Your task to perform on an android device: Go to display settings Image 0: 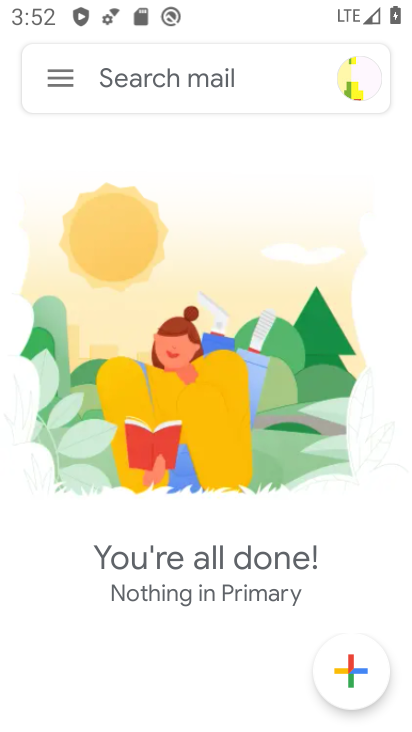
Step 0: press home button
Your task to perform on an android device: Go to display settings Image 1: 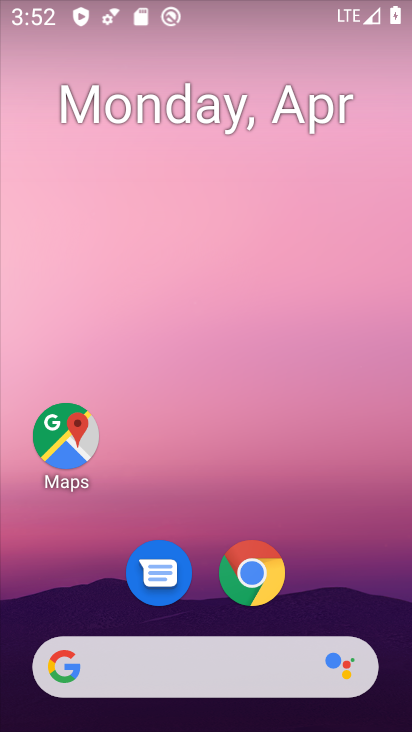
Step 1: drag from (372, 586) to (400, 117)
Your task to perform on an android device: Go to display settings Image 2: 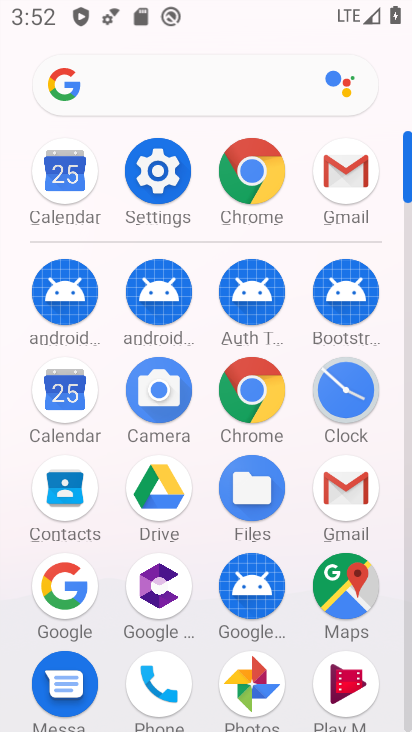
Step 2: click (180, 190)
Your task to perform on an android device: Go to display settings Image 3: 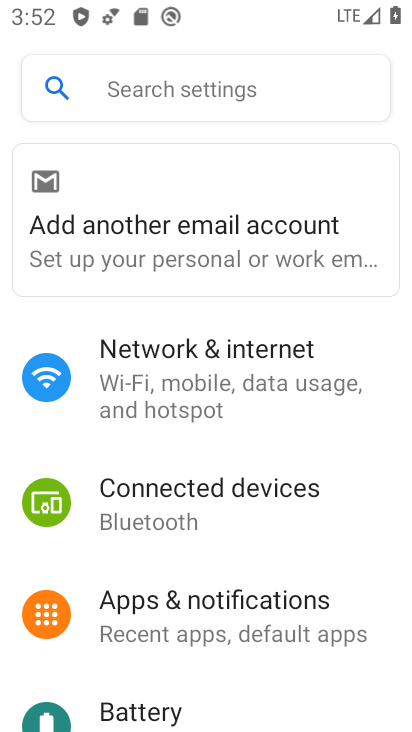
Step 3: drag from (361, 527) to (371, 383)
Your task to perform on an android device: Go to display settings Image 4: 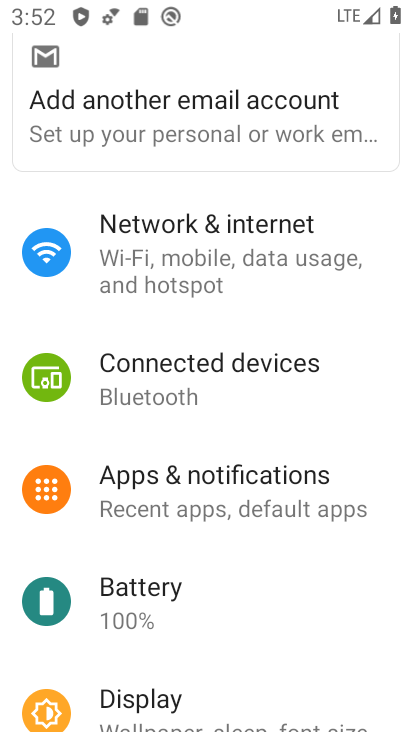
Step 4: drag from (363, 590) to (355, 422)
Your task to perform on an android device: Go to display settings Image 5: 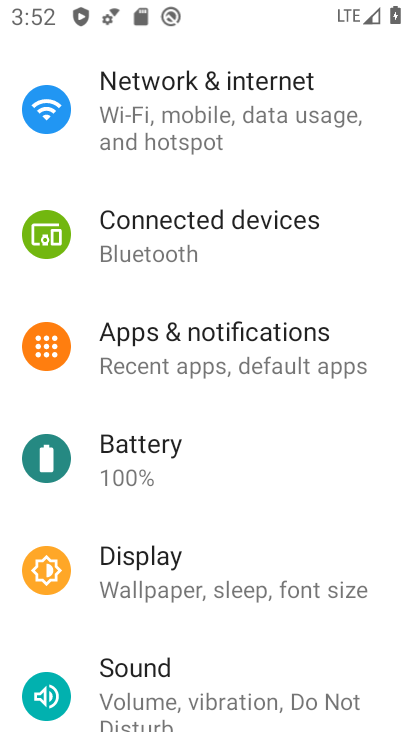
Step 5: drag from (376, 640) to (381, 481)
Your task to perform on an android device: Go to display settings Image 6: 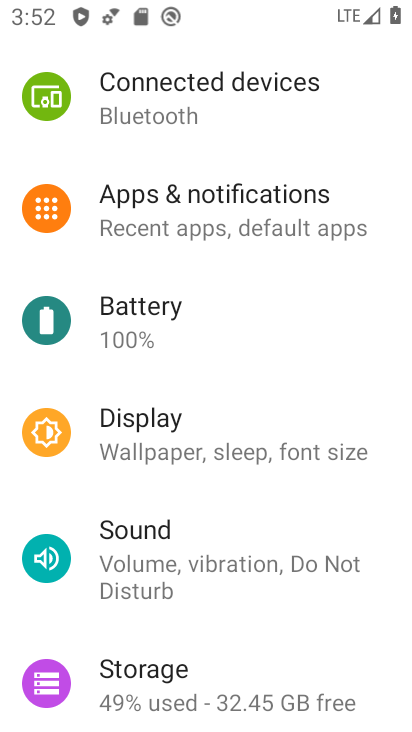
Step 6: drag from (359, 630) to (360, 509)
Your task to perform on an android device: Go to display settings Image 7: 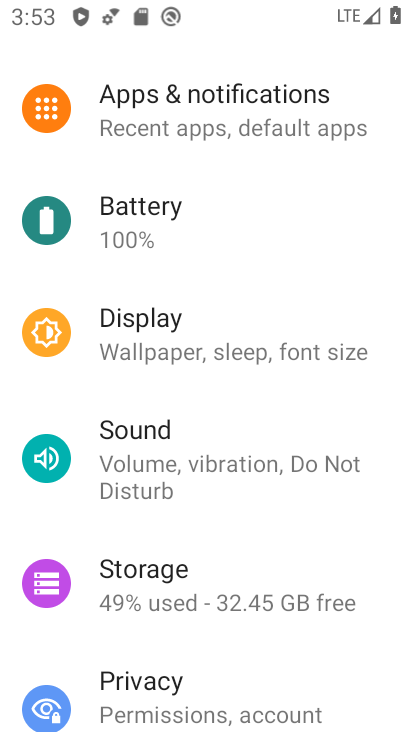
Step 7: drag from (359, 639) to (372, 515)
Your task to perform on an android device: Go to display settings Image 8: 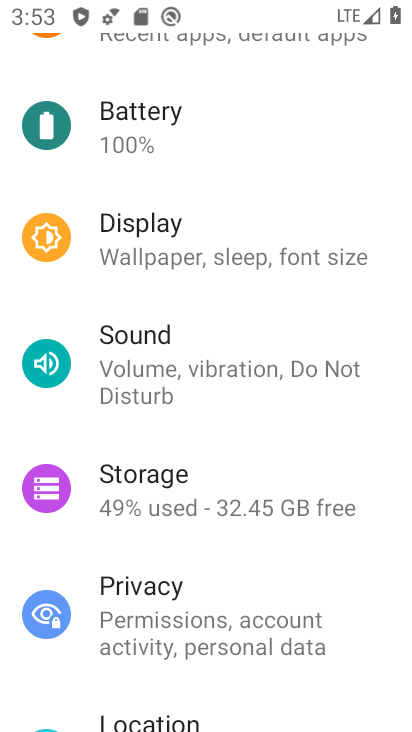
Step 8: drag from (358, 616) to (369, 425)
Your task to perform on an android device: Go to display settings Image 9: 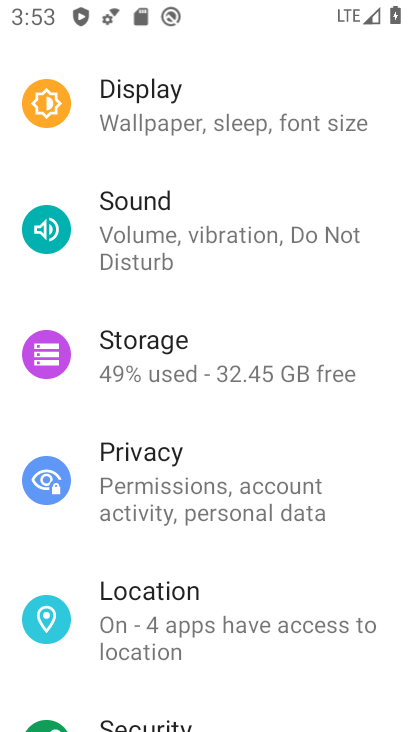
Step 9: drag from (355, 674) to (360, 480)
Your task to perform on an android device: Go to display settings Image 10: 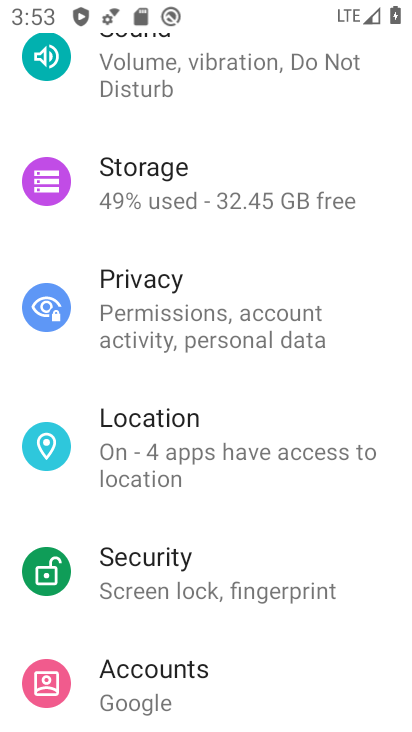
Step 10: drag from (362, 627) to (357, 481)
Your task to perform on an android device: Go to display settings Image 11: 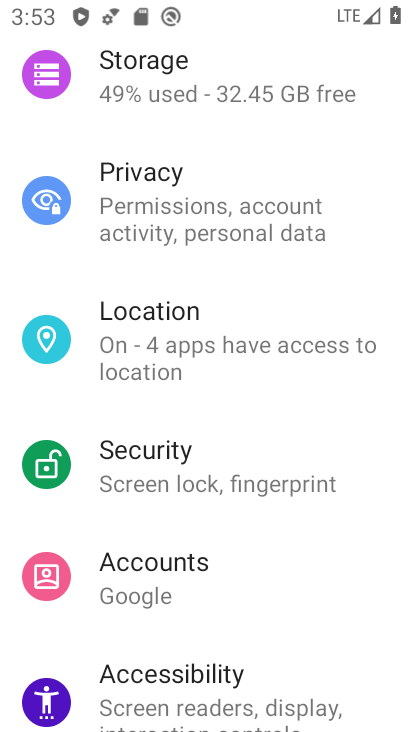
Step 11: drag from (325, 619) to (354, 478)
Your task to perform on an android device: Go to display settings Image 12: 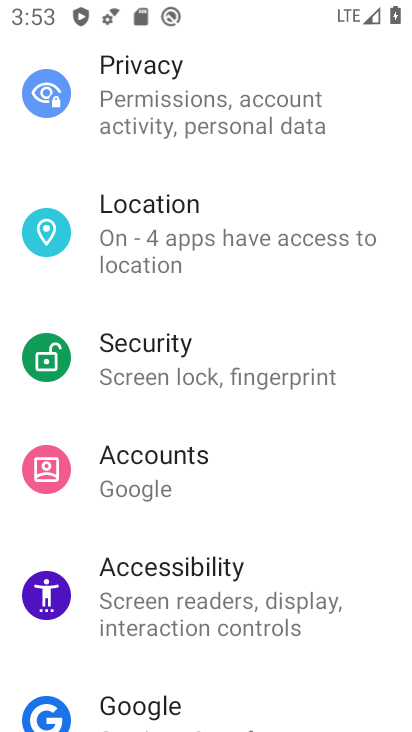
Step 12: drag from (338, 666) to (362, 466)
Your task to perform on an android device: Go to display settings Image 13: 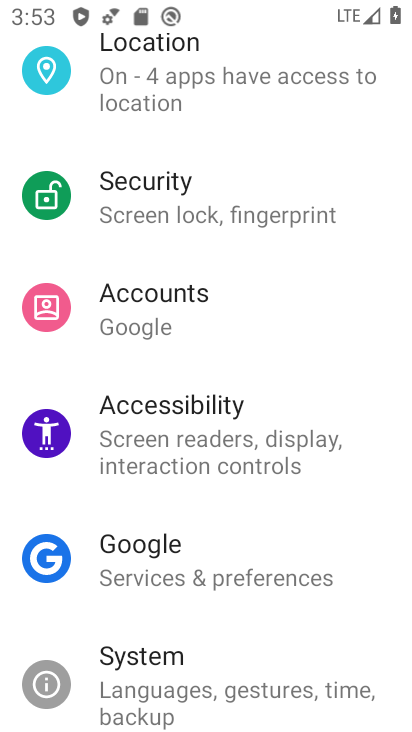
Step 13: drag from (352, 610) to (354, 438)
Your task to perform on an android device: Go to display settings Image 14: 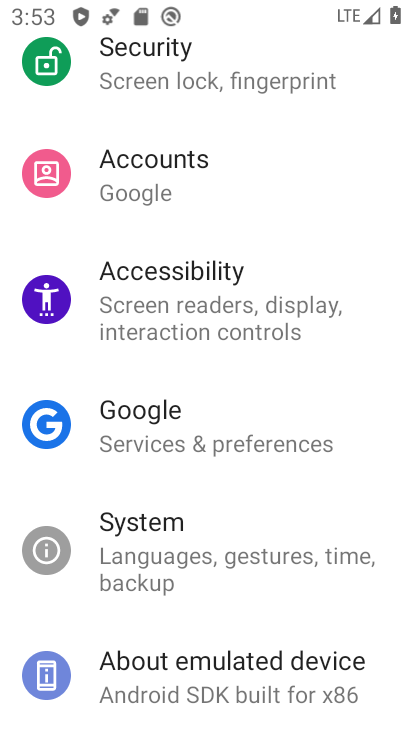
Step 14: drag from (384, 261) to (364, 457)
Your task to perform on an android device: Go to display settings Image 15: 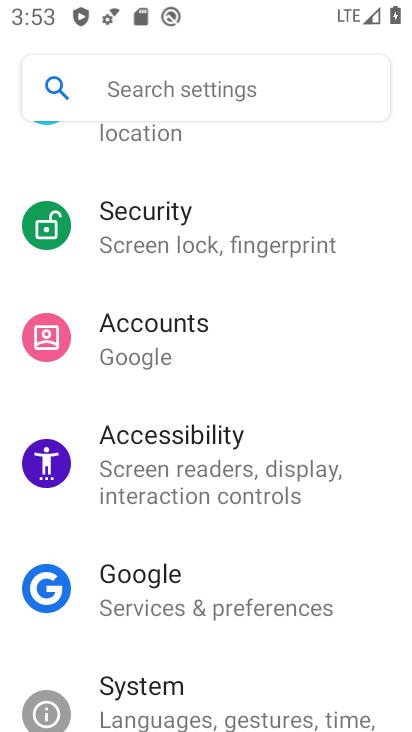
Step 15: drag from (375, 282) to (376, 473)
Your task to perform on an android device: Go to display settings Image 16: 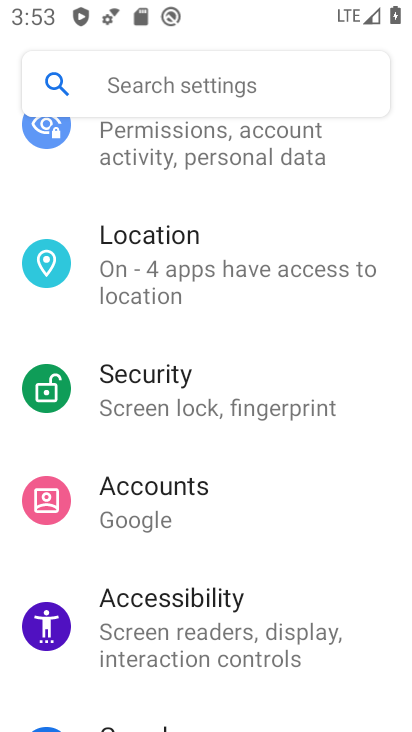
Step 16: drag from (374, 311) to (354, 515)
Your task to perform on an android device: Go to display settings Image 17: 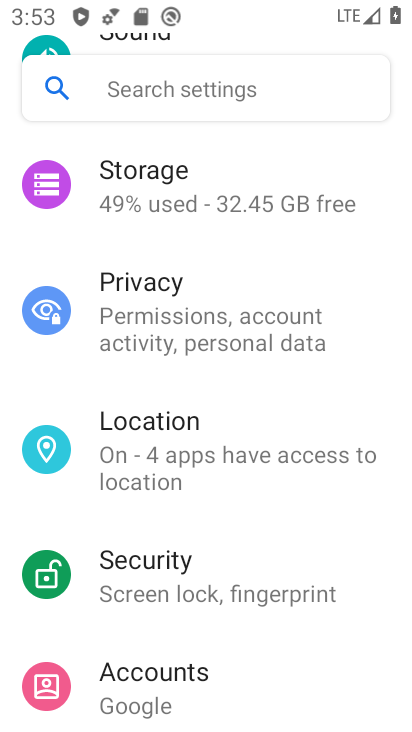
Step 17: drag from (364, 269) to (365, 474)
Your task to perform on an android device: Go to display settings Image 18: 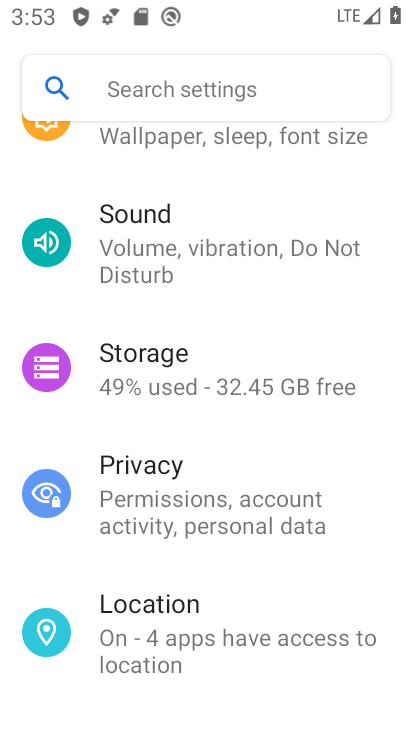
Step 18: drag from (376, 212) to (362, 421)
Your task to perform on an android device: Go to display settings Image 19: 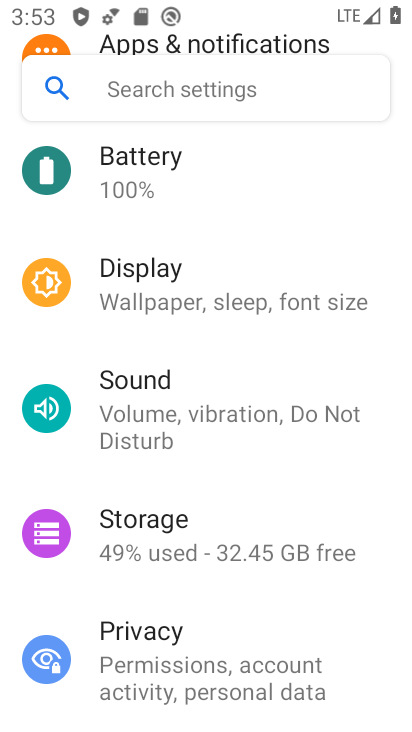
Step 19: click (275, 304)
Your task to perform on an android device: Go to display settings Image 20: 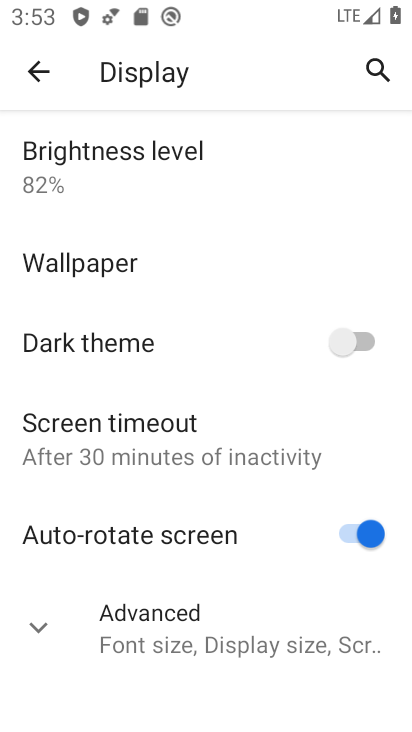
Step 20: click (225, 645)
Your task to perform on an android device: Go to display settings Image 21: 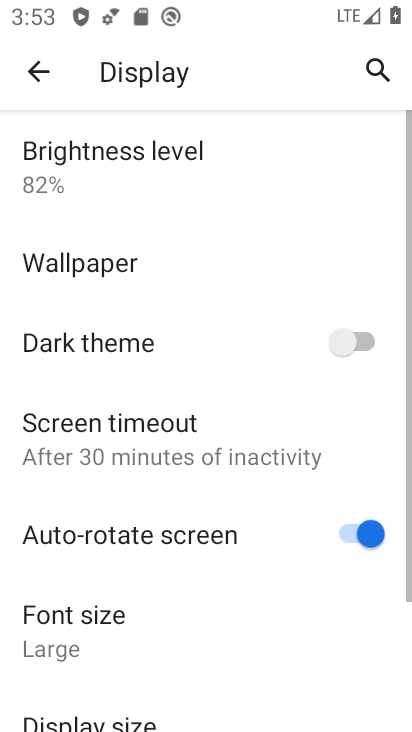
Step 21: task complete